Your task to perform on an android device: toggle wifi Image 0: 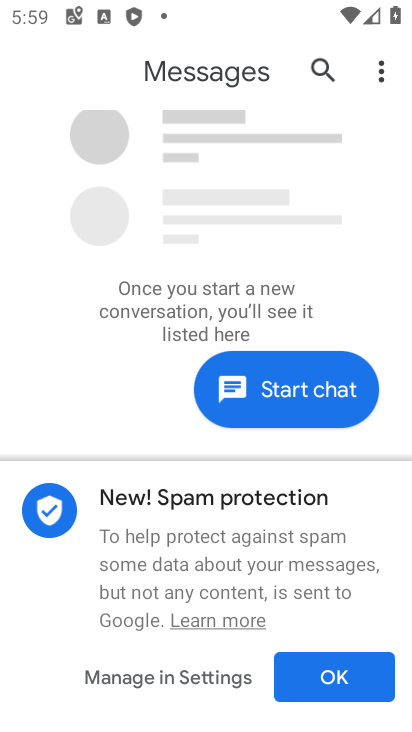
Step 0: press home button
Your task to perform on an android device: toggle wifi Image 1: 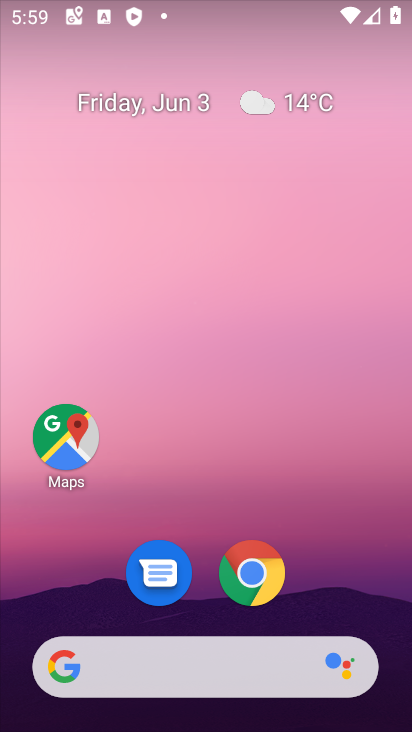
Step 1: drag from (320, 619) to (201, 4)
Your task to perform on an android device: toggle wifi Image 2: 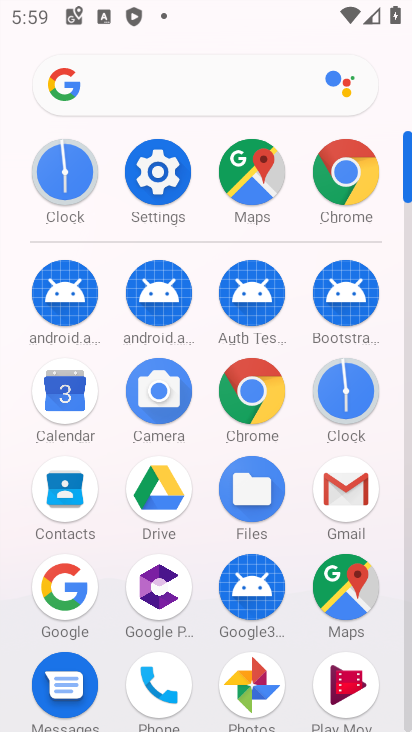
Step 2: click (176, 183)
Your task to perform on an android device: toggle wifi Image 3: 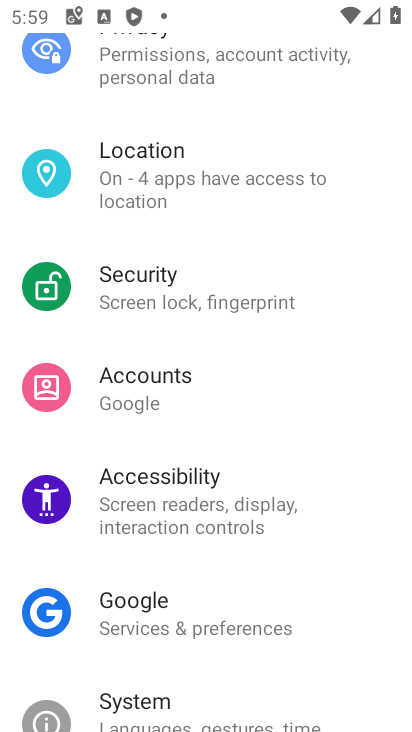
Step 3: drag from (208, 180) to (295, 723)
Your task to perform on an android device: toggle wifi Image 4: 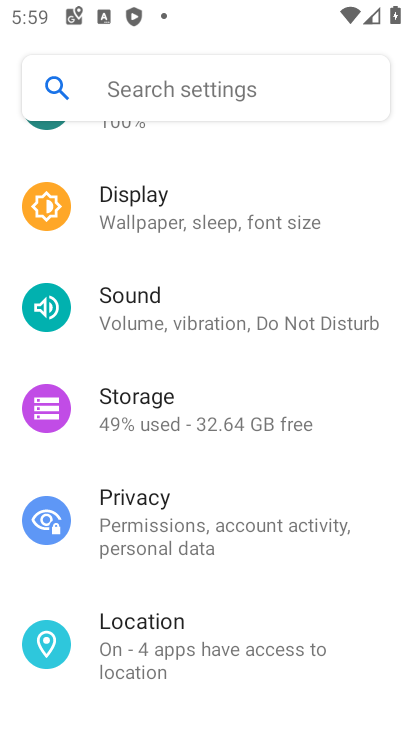
Step 4: drag from (202, 217) to (273, 717)
Your task to perform on an android device: toggle wifi Image 5: 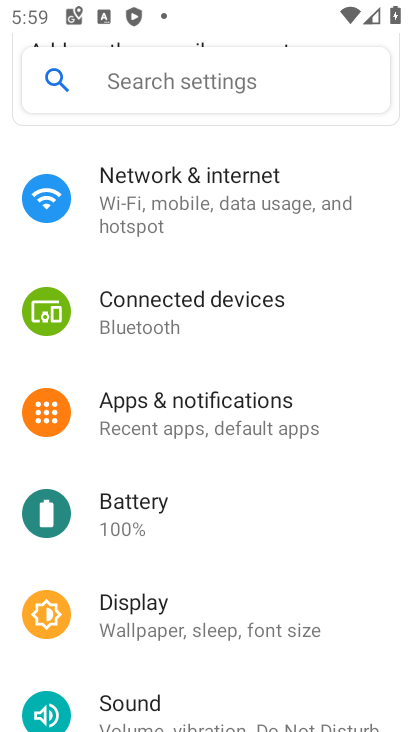
Step 5: click (195, 186)
Your task to perform on an android device: toggle wifi Image 6: 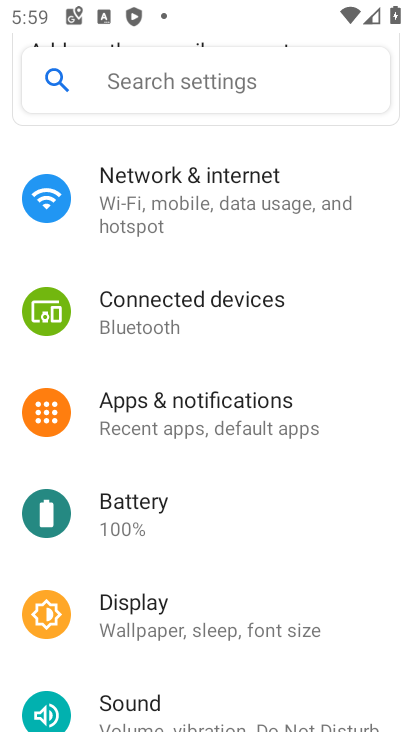
Step 6: click (197, 206)
Your task to perform on an android device: toggle wifi Image 7: 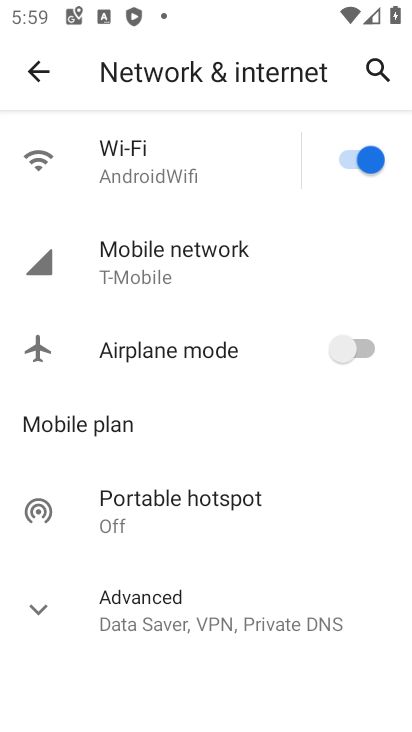
Step 7: click (213, 202)
Your task to perform on an android device: toggle wifi Image 8: 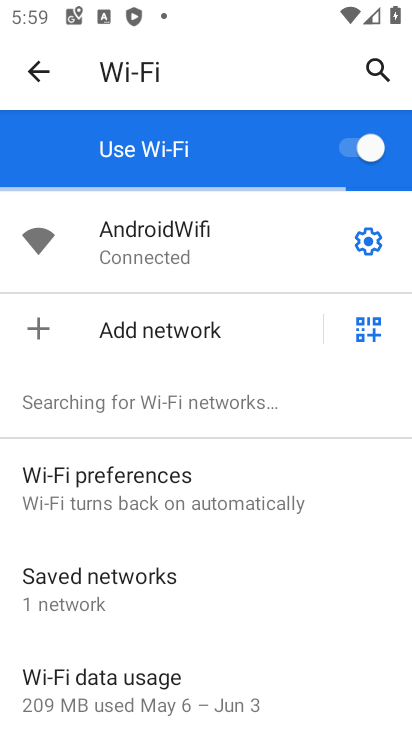
Step 8: click (353, 152)
Your task to perform on an android device: toggle wifi Image 9: 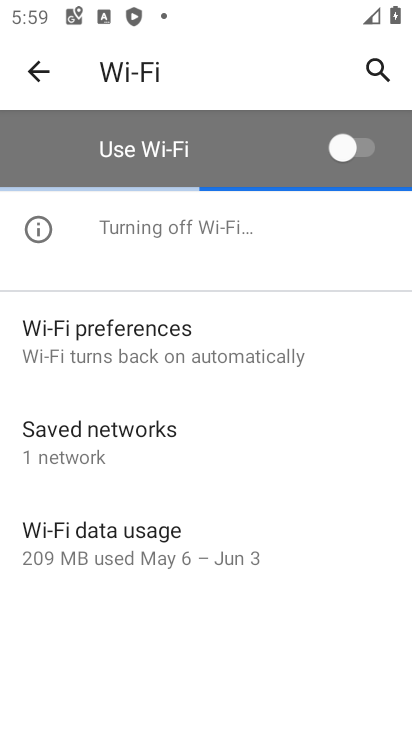
Step 9: task complete